Your task to perform on an android device: set default search engine in the chrome app Image 0: 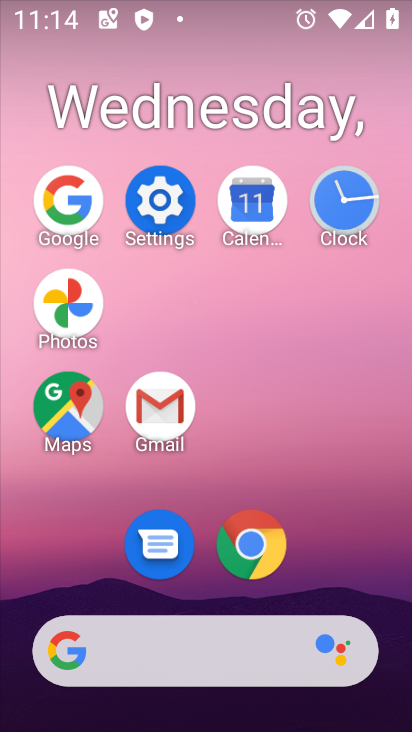
Step 0: click (269, 552)
Your task to perform on an android device: set default search engine in the chrome app Image 1: 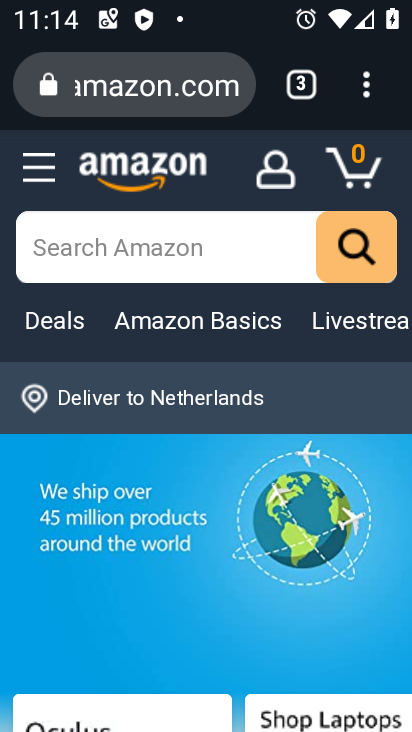
Step 1: click (371, 65)
Your task to perform on an android device: set default search engine in the chrome app Image 2: 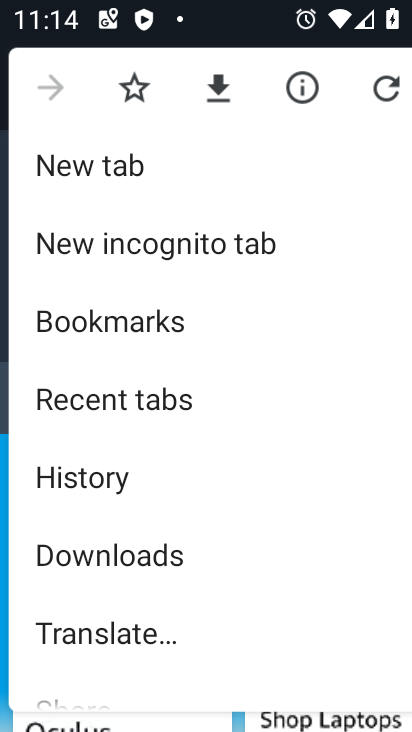
Step 2: drag from (278, 672) to (290, 173)
Your task to perform on an android device: set default search engine in the chrome app Image 3: 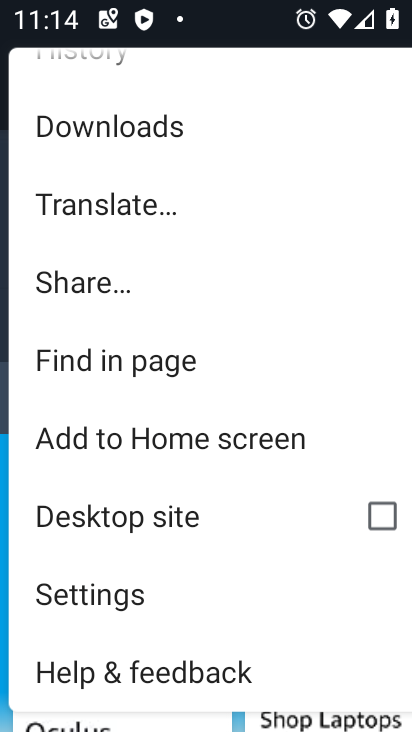
Step 3: click (184, 583)
Your task to perform on an android device: set default search engine in the chrome app Image 4: 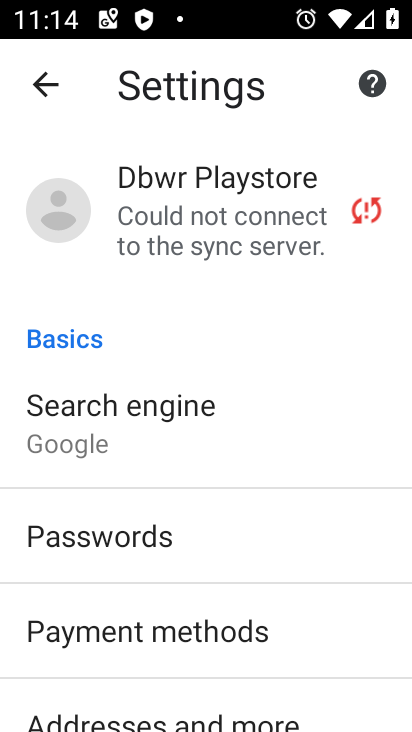
Step 4: click (197, 462)
Your task to perform on an android device: set default search engine in the chrome app Image 5: 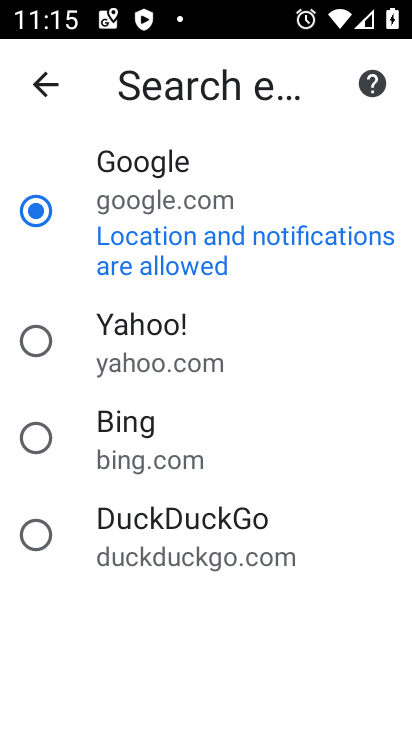
Step 5: task complete